Your task to perform on an android device: uninstall "YouTube Kids" Image 0: 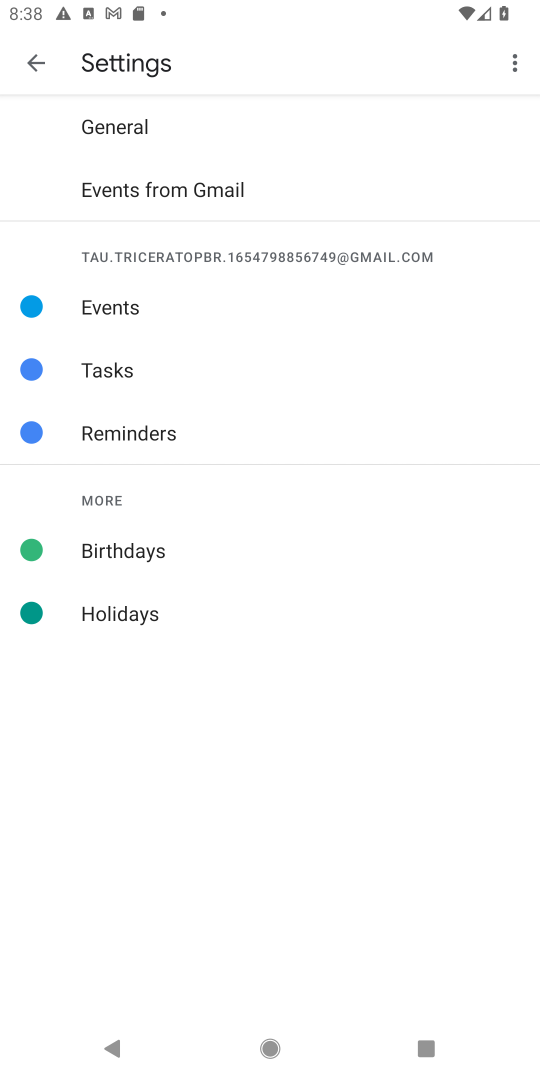
Step 0: press home button
Your task to perform on an android device: uninstall "YouTube Kids" Image 1: 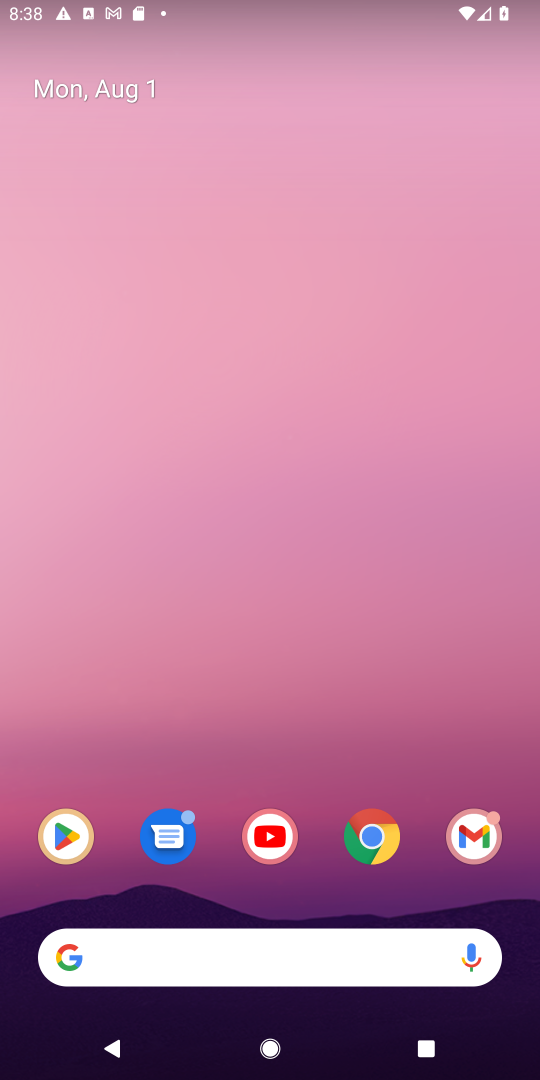
Step 1: click (70, 827)
Your task to perform on an android device: uninstall "YouTube Kids" Image 2: 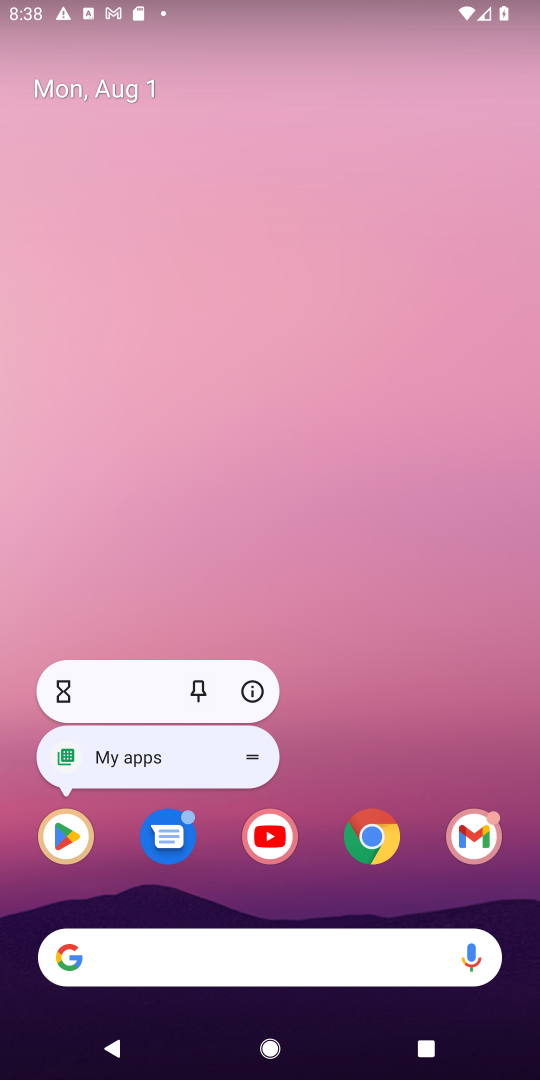
Step 2: click (68, 832)
Your task to perform on an android device: uninstall "YouTube Kids" Image 3: 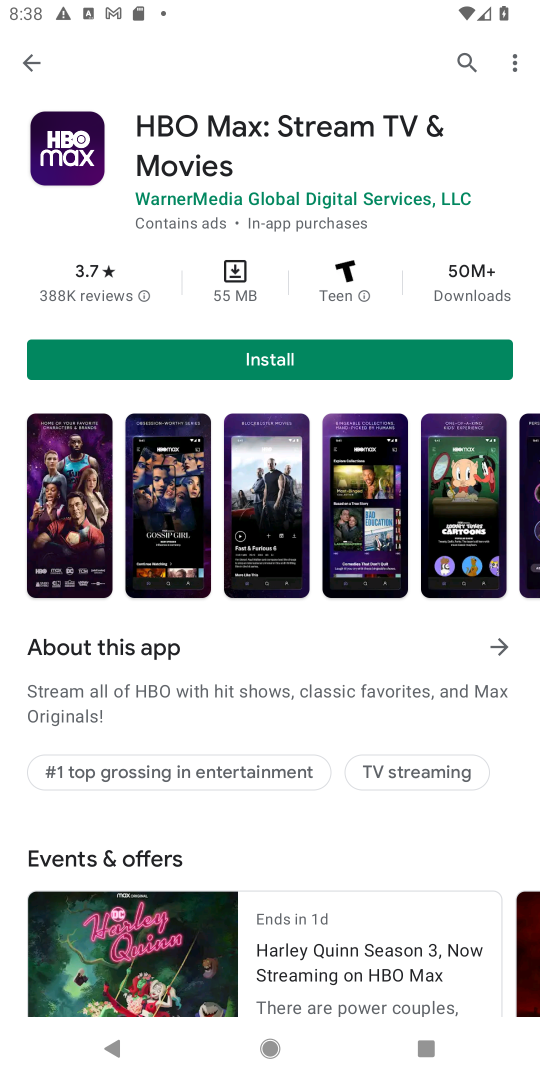
Step 3: click (459, 64)
Your task to perform on an android device: uninstall "YouTube Kids" Image 4: 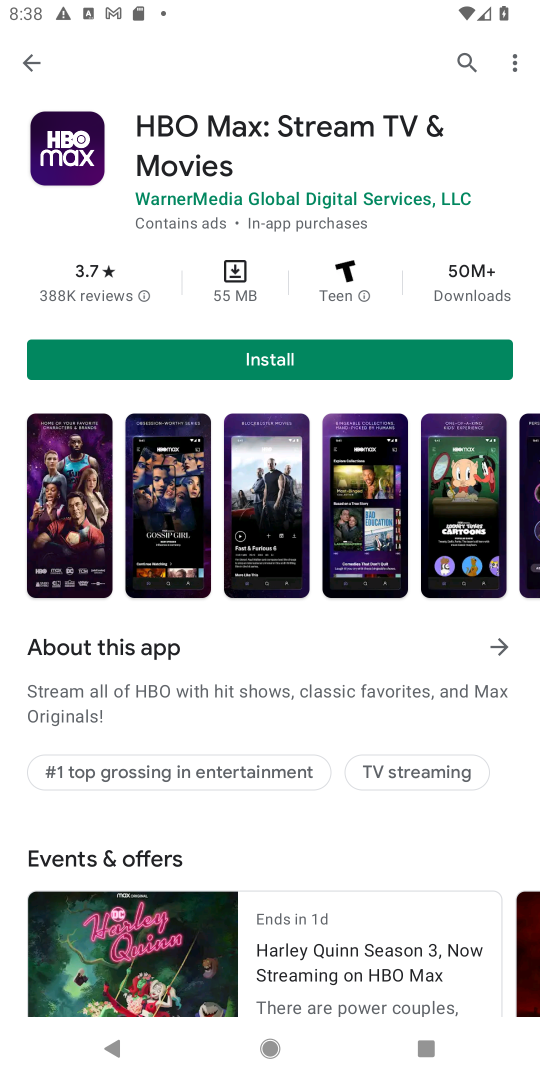
Step 4: click (463, 58)
Your task to perform on an android device: uninstall "YouTube Kids" Image 5: 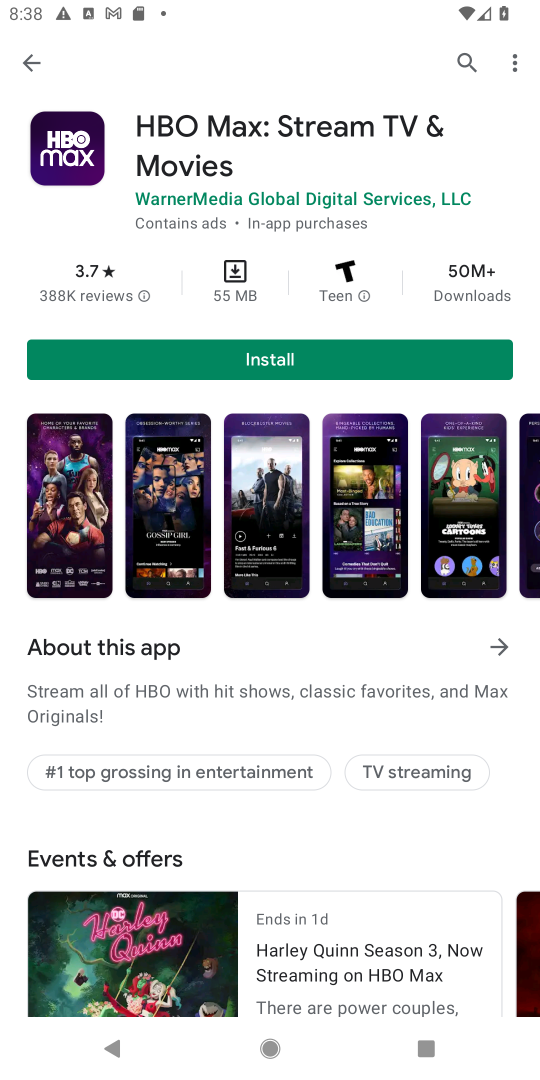
Step 5: click (463, 58)
Your task to perform on an android device: uninstall "YouTube Kids" Image 6: 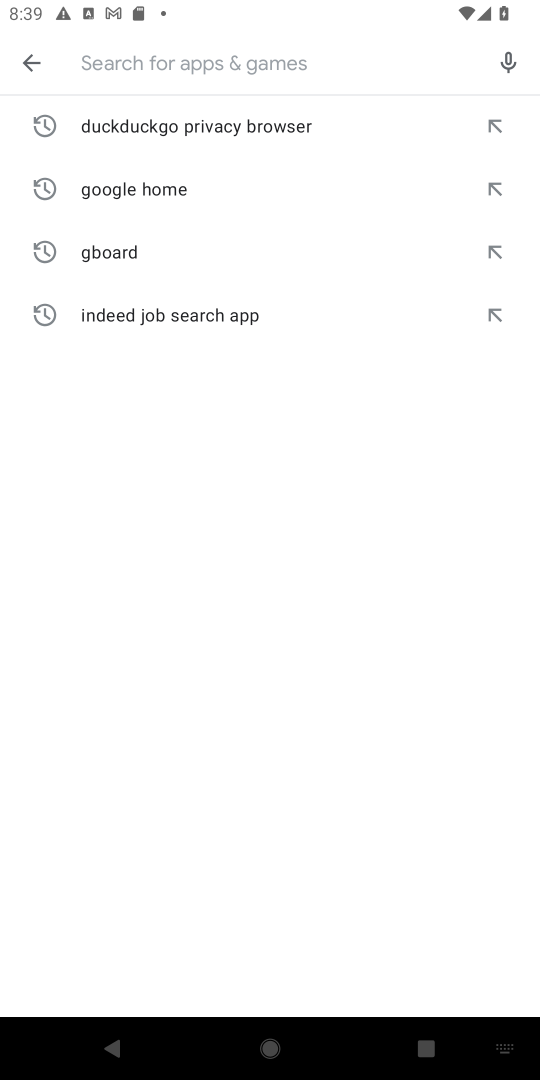
Step 6: type "YouTube Kids"
Your task to perform on an android device: uninstall "YouTube Kids" Image 7: 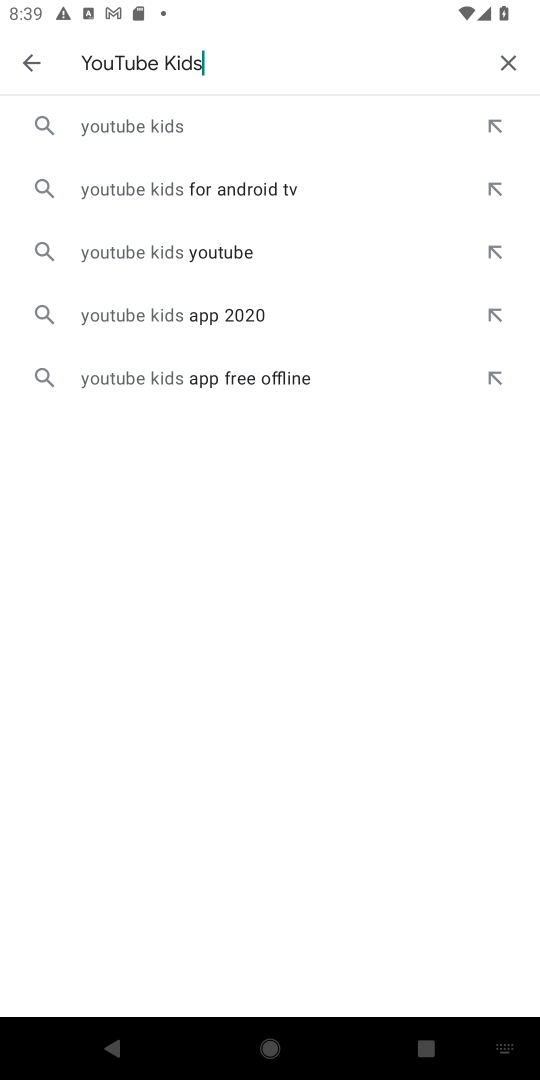
Step 7: click (165, 121)
Your task to perform on an android device: uninstall "YouTube Kids" Image 8: 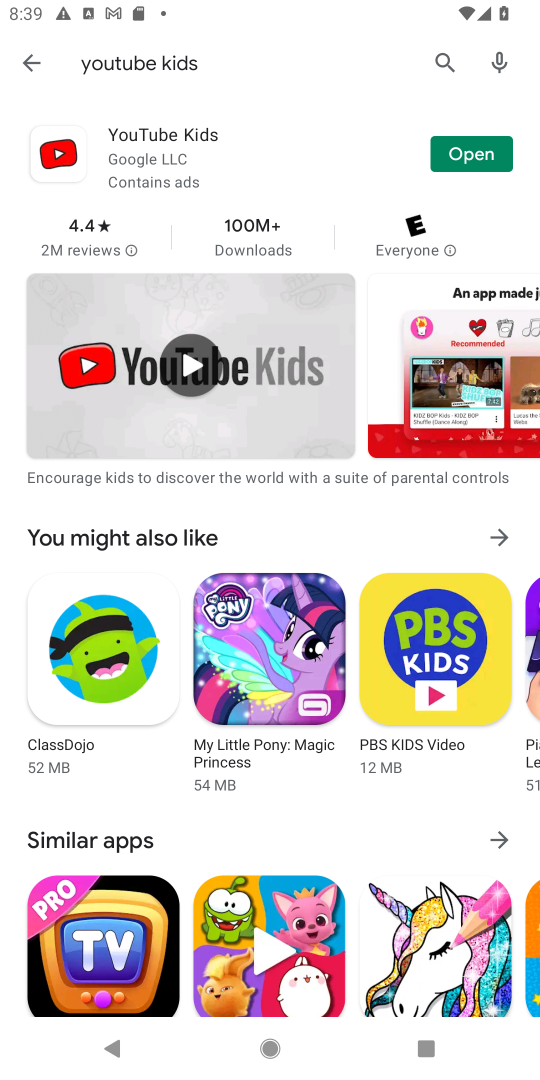
Step 8: click (99, 140)
Your task to perform on an android device: uninstall "YouTube Kids" Image 9: 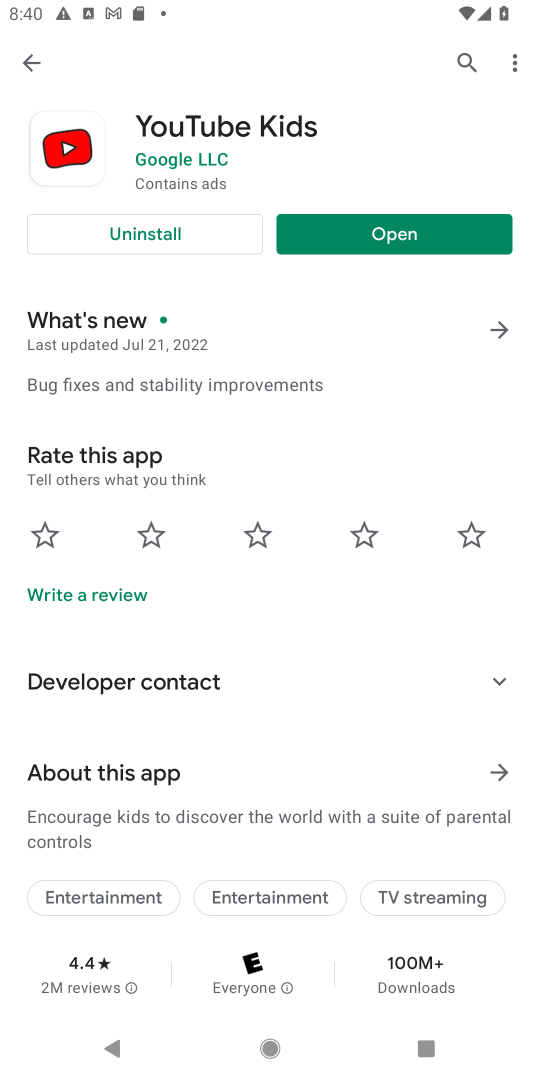
Step 9: click (183, 236)
Your task to perform on an android device: uninstall "YouTube Kids" Image 10: 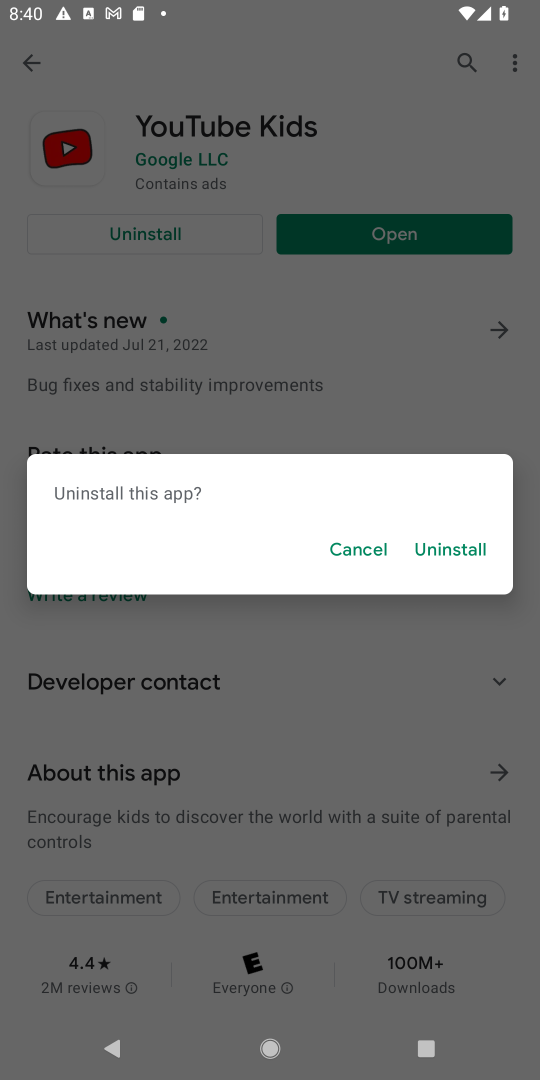
Step 10: click (450, 548)
Your task to perform on an android device: uninstall "YouTube Kids" Image 11: 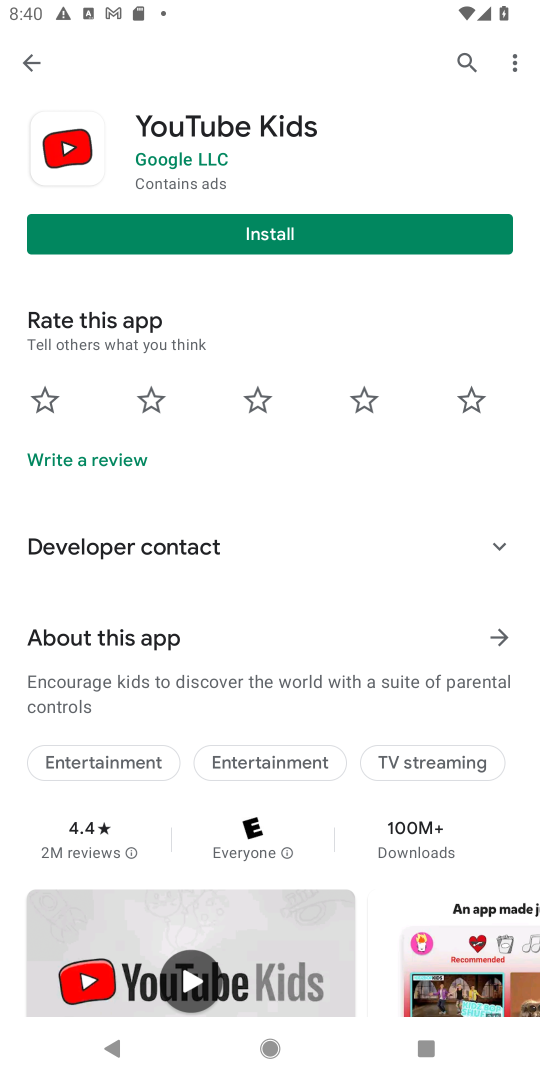
Step 11: task complete